Your task to perform on an android device: uninstall "LinkedIn" Image 0: 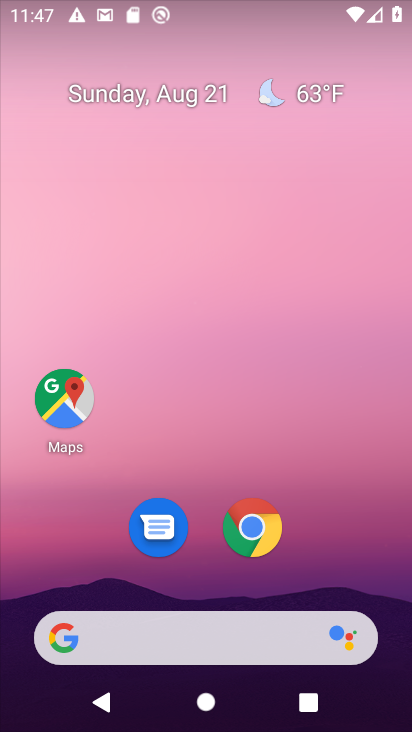
Step 0: drag from (260, 660) to (154, 101)
Your task to perform on an android device: uninstall "LinkedIn" Image 1: 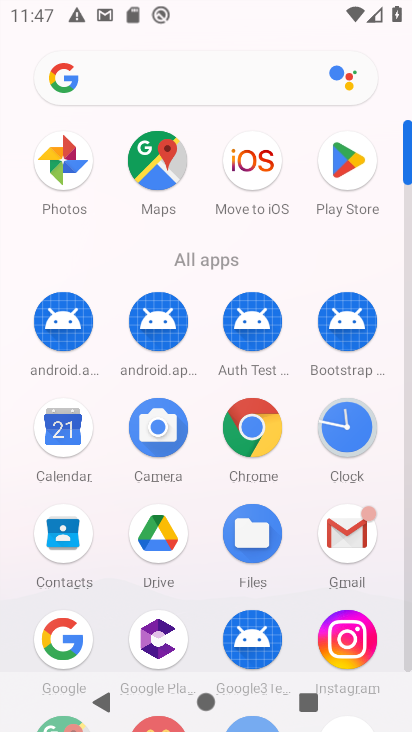
Step 1: click (347, 158)
Your task to perform on an android device: uninstall "LinkedIn" Image 2: 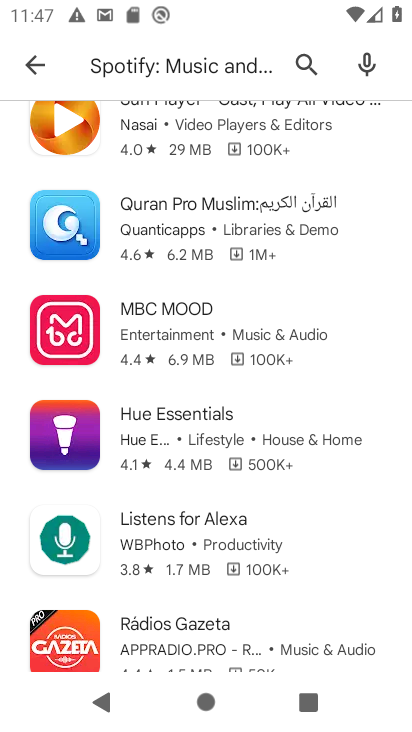
Step 2: press back button
Your task to perform on an android device: uninstall "LinkedIn" Image 3: 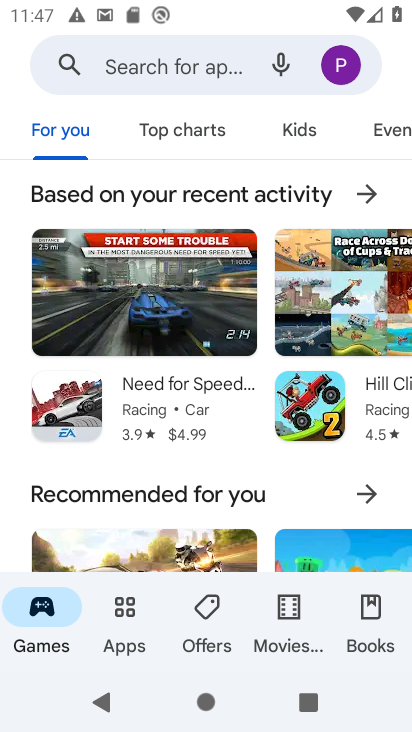
Step 3: click (153, 78)
Your task to perform on an android device: uninstall "LinkedIn" Image 4: 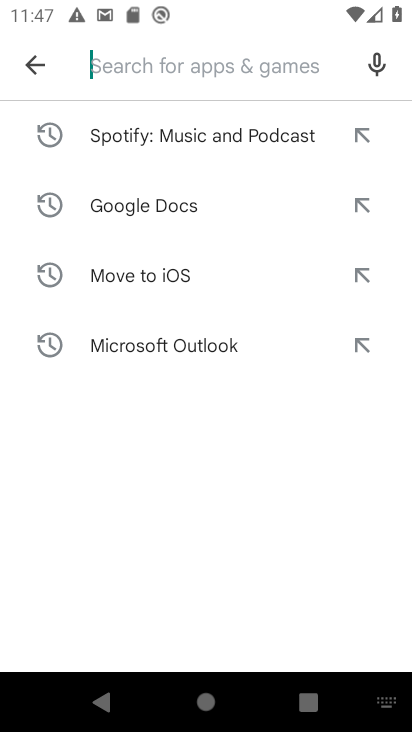
Step 4: type "LinkedIn"
Your task to perform on an android device: uninstall "LinkedIn" Image 5: 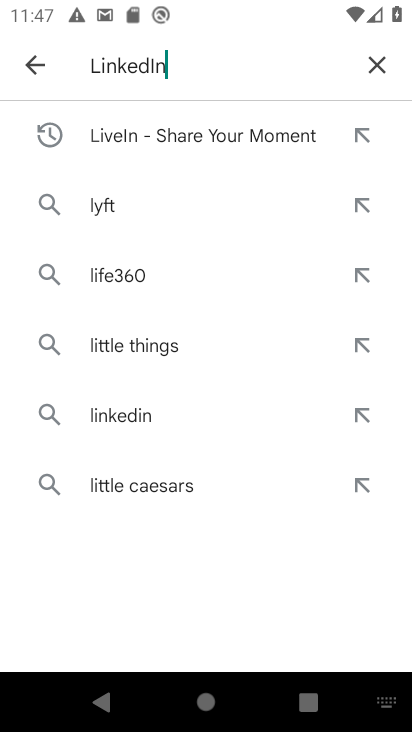
Step 5: press enter
Your task to perform on an android device: uninstall "LinkedIn" Image 6: 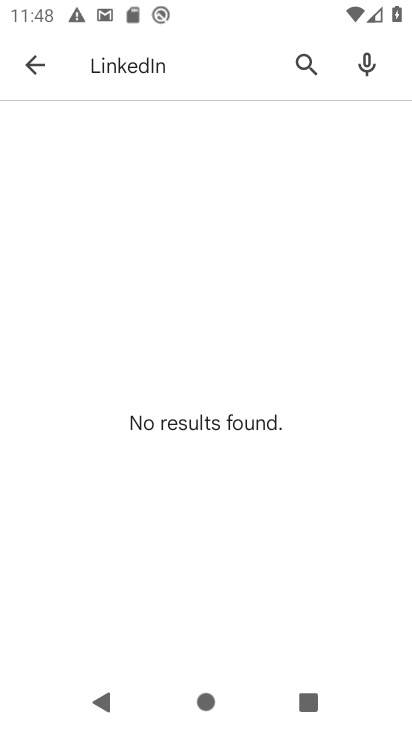
Step 6: task complete